Your task to perform on an android device: Open ESPN.com Image 0: 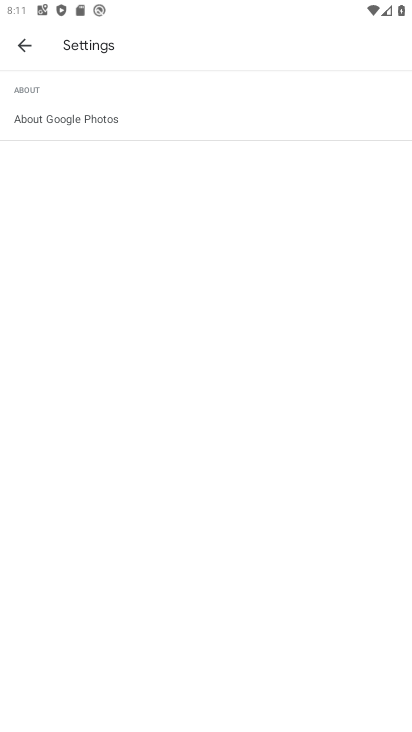
Step 0: press home button
Your task to perform on an android device: Open ESPN.com Image 1: 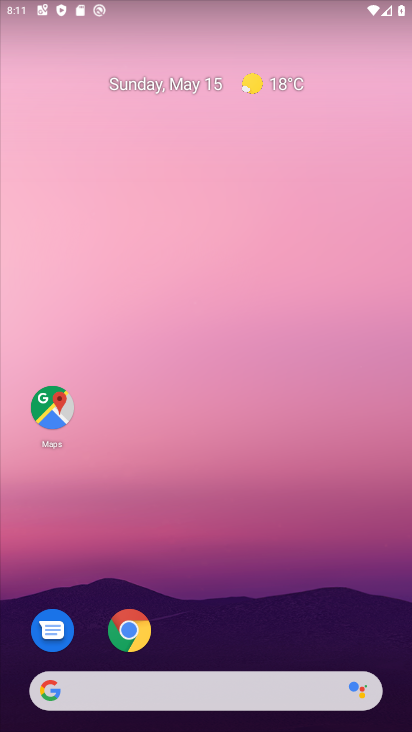
Step 1: click (348, 80)
Your task to perform on an android device: Open ESPN.com Image 2: 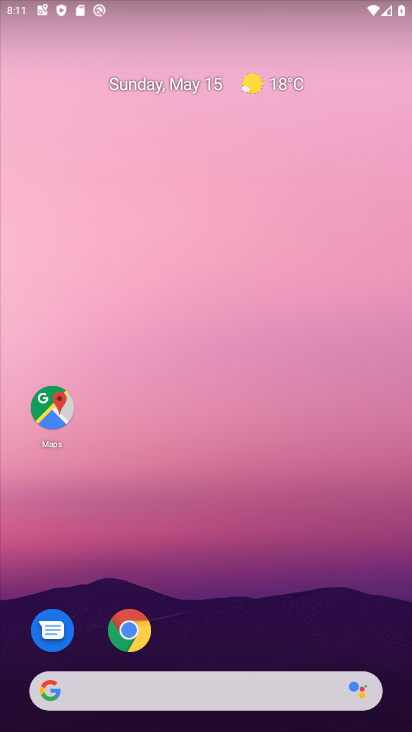
Step 2: drag from (211, 649) to (223, 63)
Your task to perform on an android device: Open ESPN.com Image 3: 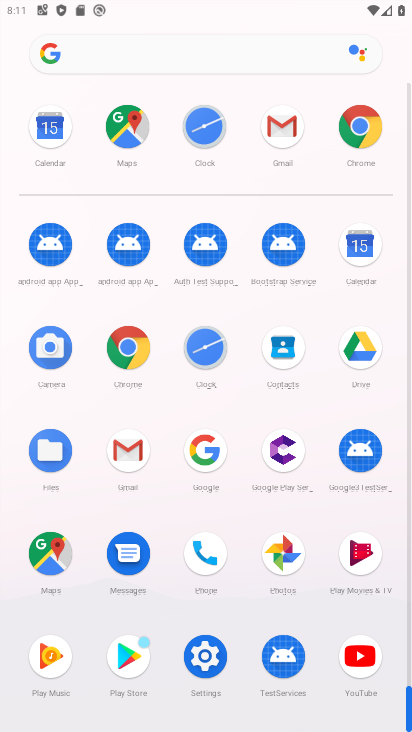
Step 3: click (186, 54)
Your task to perform on an android device: Open ESPN.com Image 4: 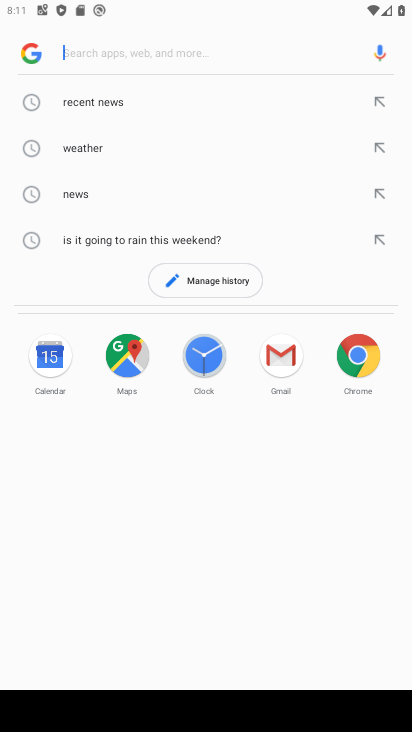
Step 4: type ""
Your task to perform on an android device: Open ESPN.com Image 5: 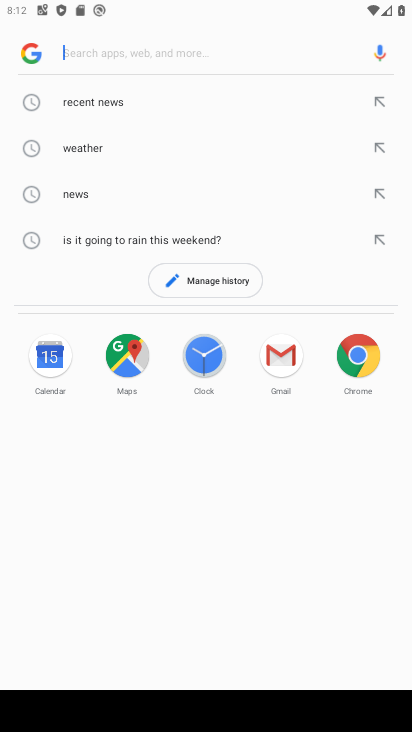
Step 5: type "espn.com"
Your task to perform on an android device: Open ESPN.com Image 6: 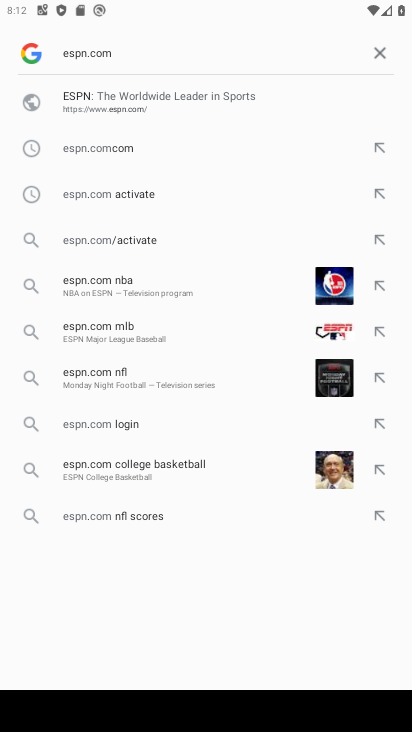
Step 6: click (77, 140)
Your task to perform on an android device: Open ESPN.com Image 7: 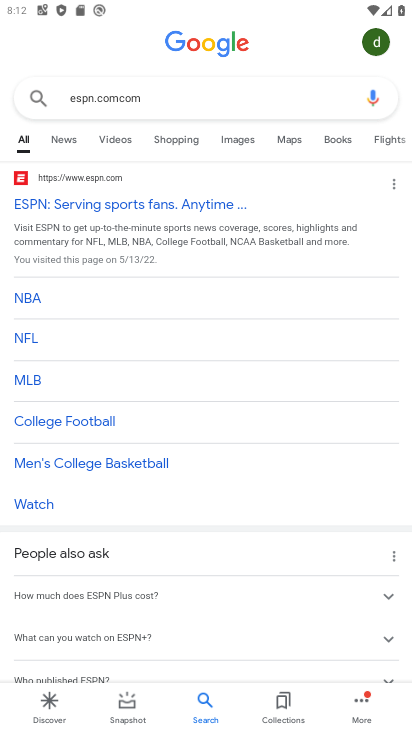
Step 7: click (103, 200)
Your task to perform on an android device: Open ESPN.com Image 8: 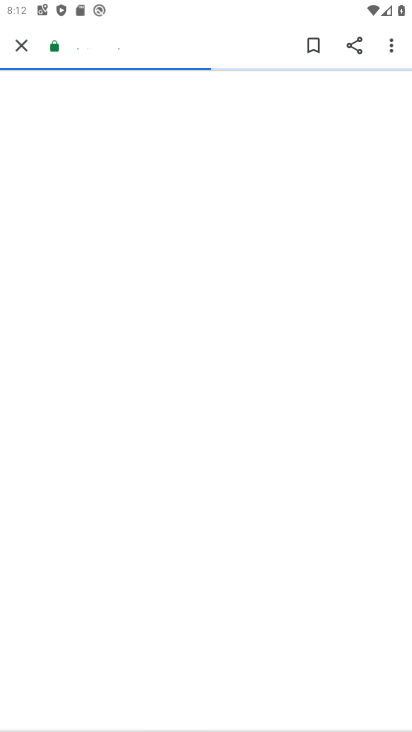
Step 8: task complete